Your task to perform on an android device: change alarm snooze length Image 0: 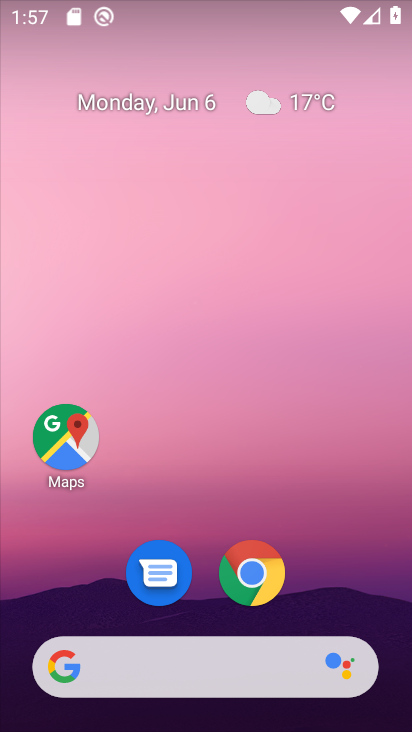
Step 0: press home button
Your task to perform on an android device: change alarm snooze length Image 1: 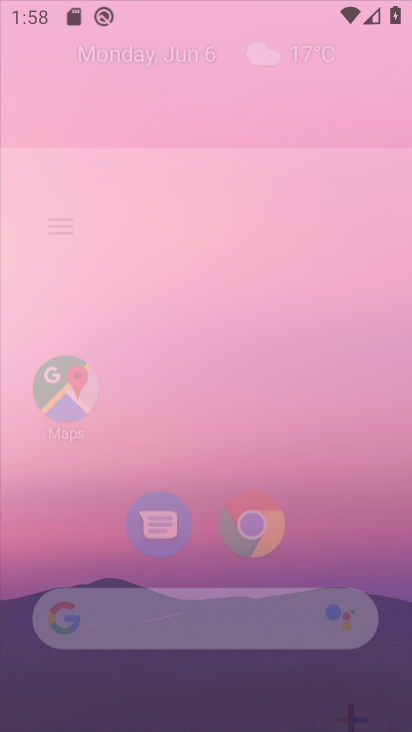
Step 1: drag from (400, 651) to (293, 80)
Your task to perform on an android device: change alarm snooze length Image 2: 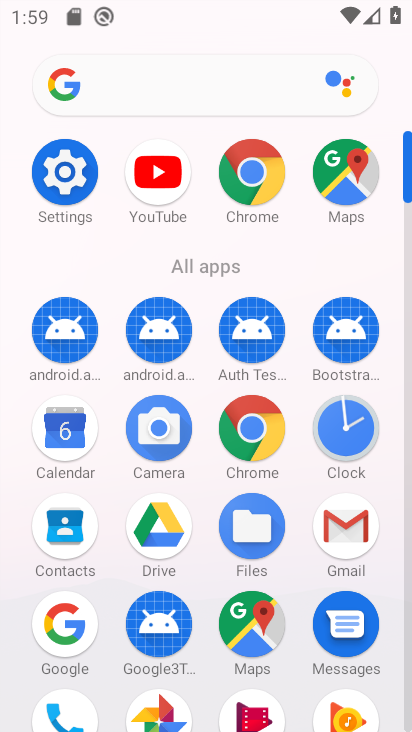
Step 2: click (333, 432)
Your task to perform on an android device: change alarm snooze length Image 3: 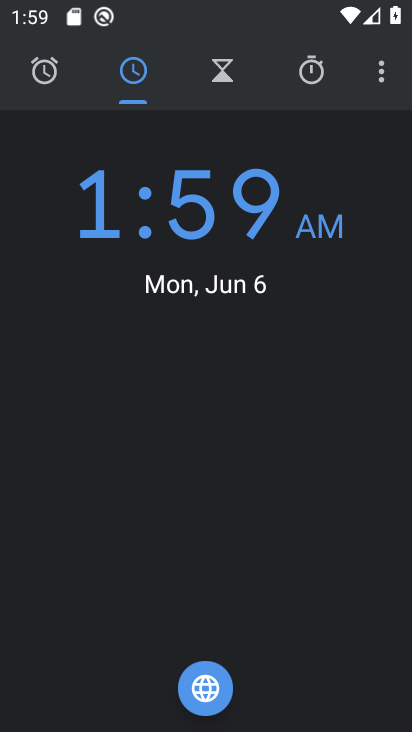
Step 3: click (383, 65)
Your task to perform on an android device: change alarm snooze length Image 4: 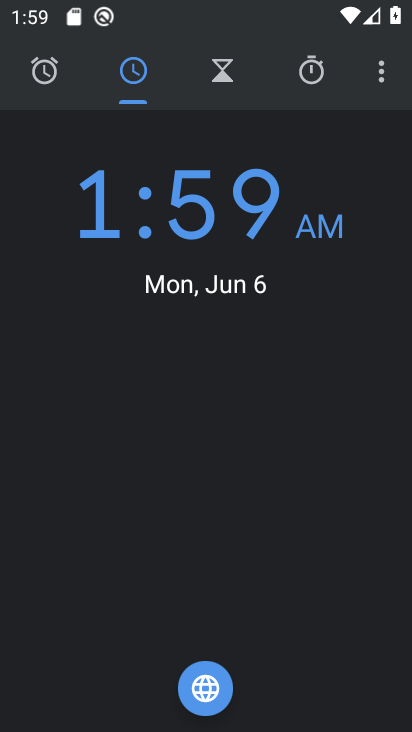
Step 4: click (379, 65)
Your task to perform on an android device: change alarm snooze length Image 5: 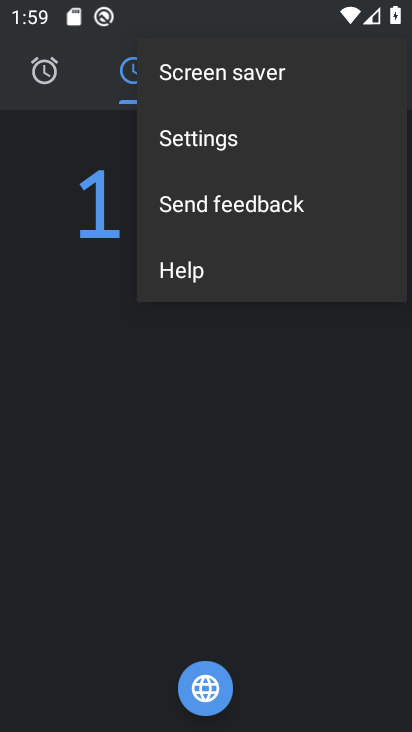
Step 5: click (230, 145)
Your task to perform on an android device: change alarm snooze length Image 6: 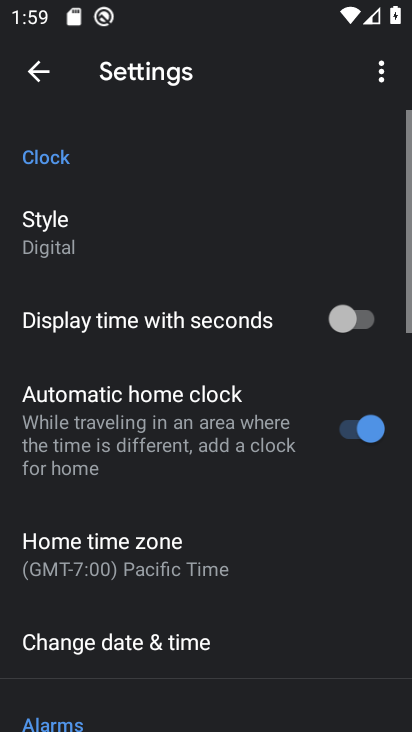
Step 6: drag from (156, 618) to (154, 178)
Your task to perform on an android device: change alarm snooze length Image 7: 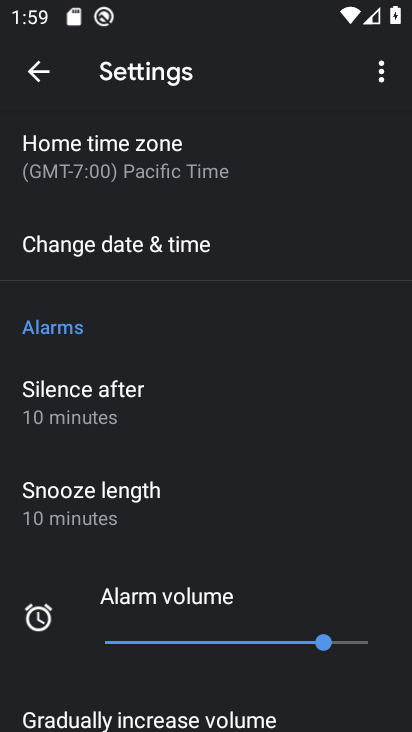
Step 7: click (182, 509)
Your task to perform on an android device: change alarm snooze length Image 8: 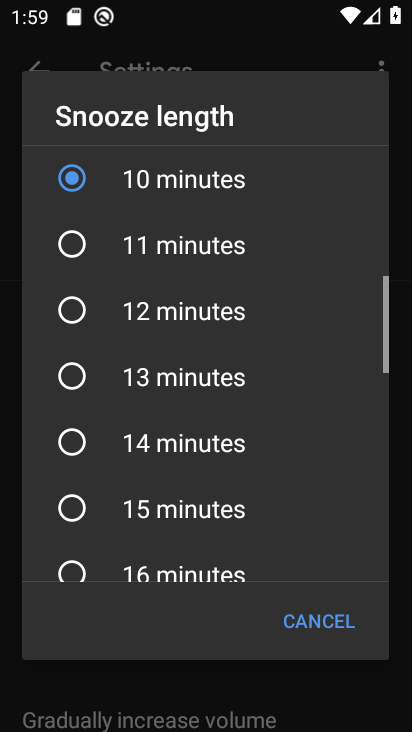
Step 8: click (81, 506)
Your task to perform on an android device: change alarm snooze length Image 9: 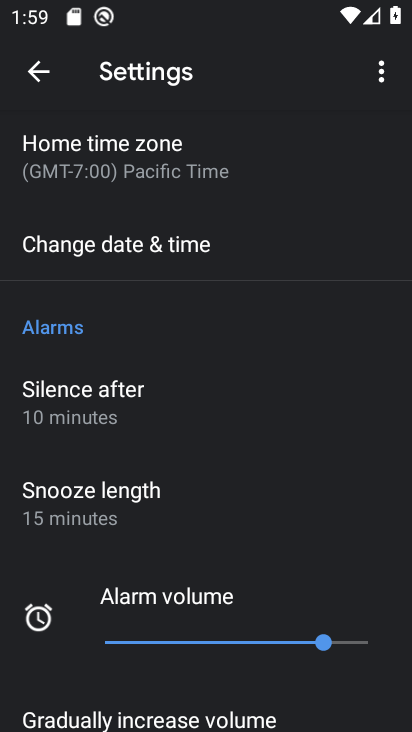
Step 9: task complete